Your task to perform on an android device: Open Chrome and go to settings Image 0: 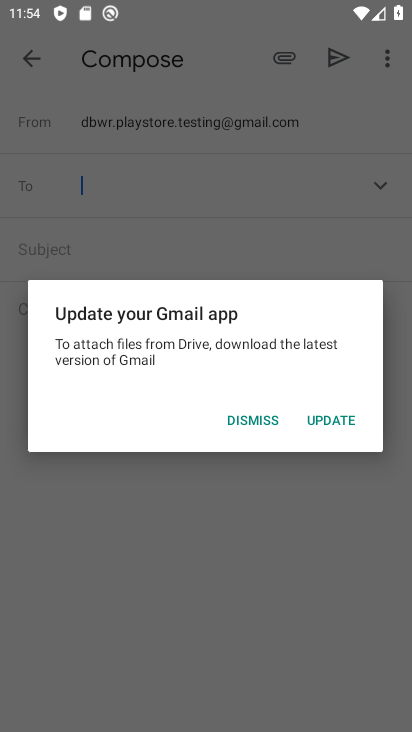
Step 0: press home button
Your task to perform on an android device: Open Chrome and go to settings Image 1: 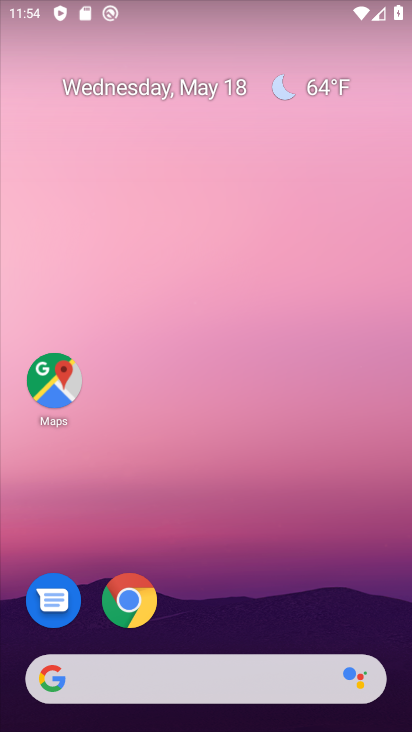
Step 1: drag from (228, 596) to (197, 9)
Your task to perform on an android device: Open Chrome and go to settings Image 2: 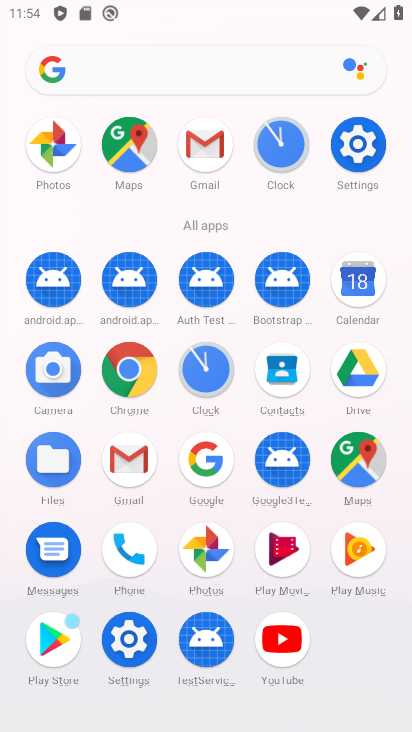
Step 2: click (119, 375)
Your task to perform on an android device: Open Chrome and go to settings Image 3: 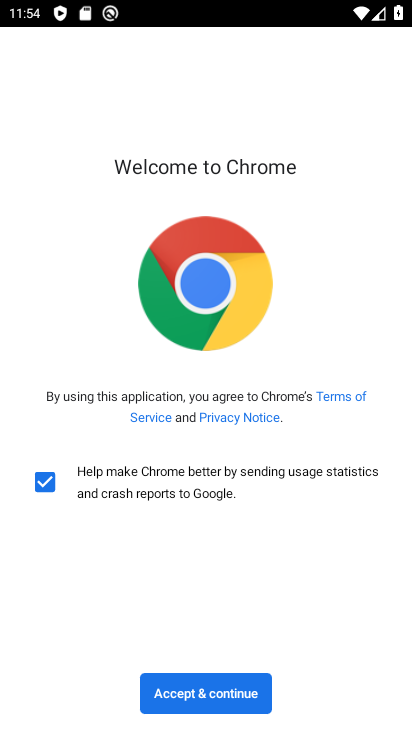
Step 3: click (209, 678)
Your task to perform on an android device: Open Chrome and go to settings Image 4: 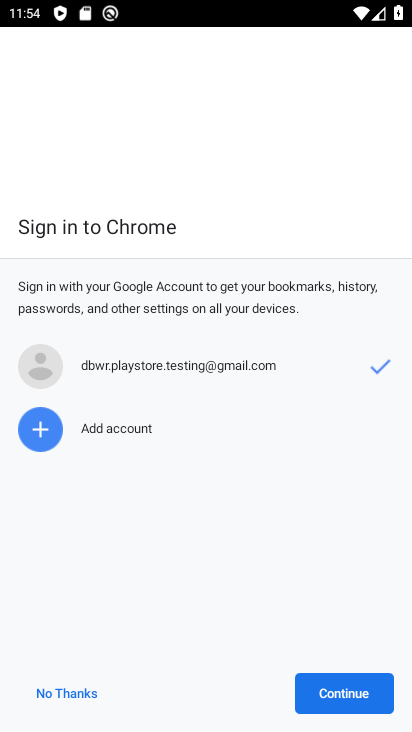
Step 4: click (361, 692)
Your task to perform on an android device: Open Chrome and go to settings Image 5: 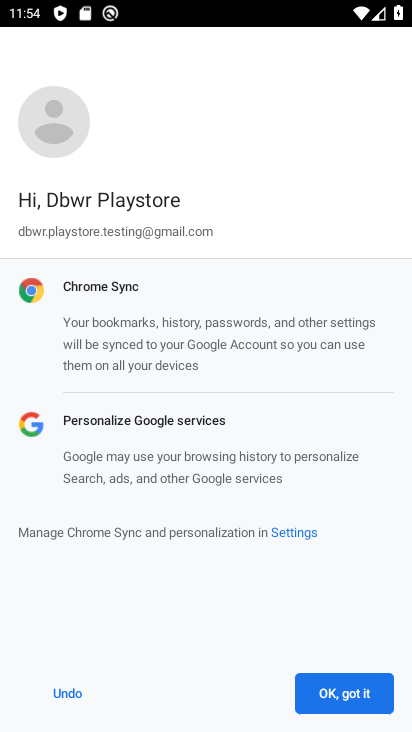
Step 5: click (335, 678)
Your task to perform on an android device: Open Chrome and go to settings Image 6: 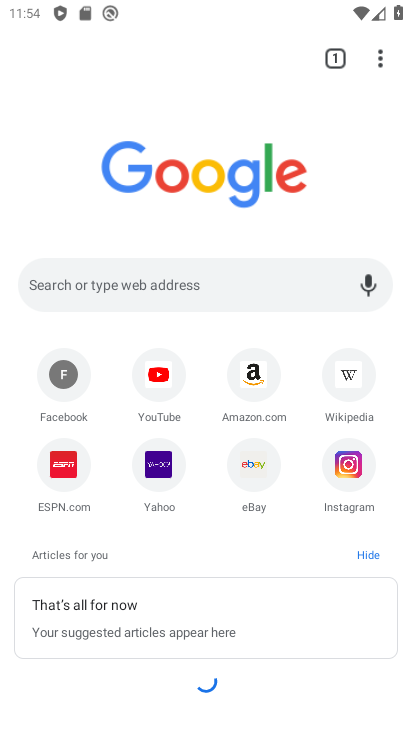
Step 6: click (378, 63)
Your task to perform on an android device: Open Chrome and go to settings Image 7: 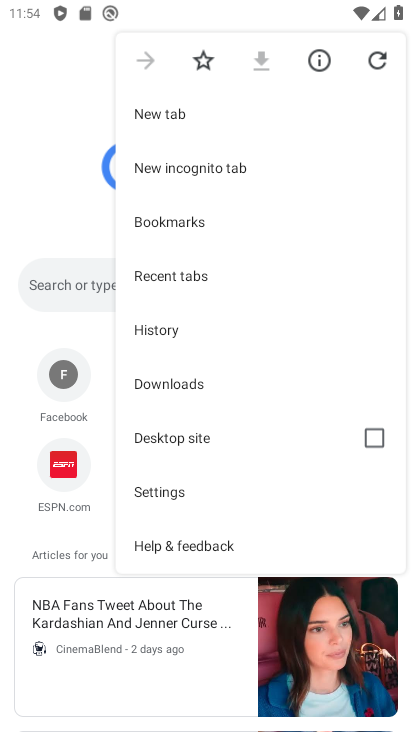
Step 7: click (158, 488)
Your task to perform on an android device: Open Chrome and go to settings Image 8: 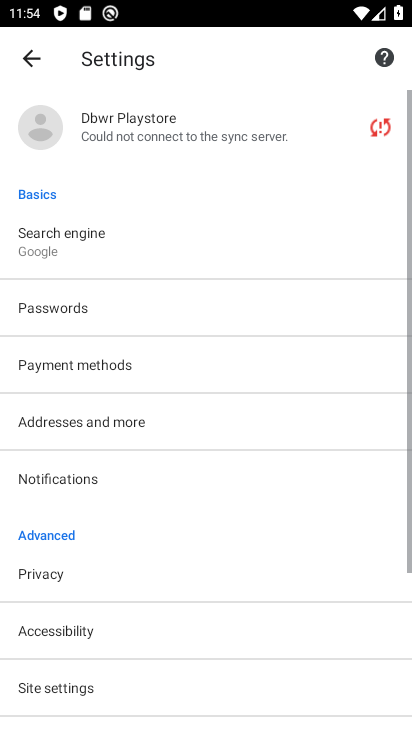
Step 8: task complete